Your task to perform on an android device: toggle location history Image 0: 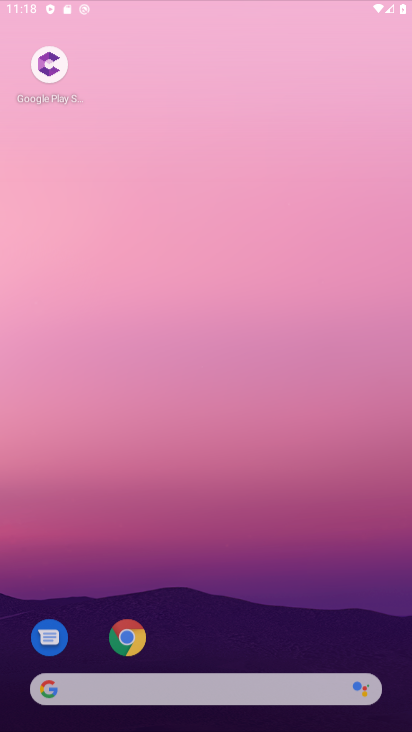
Step 0: click (159, 195)
Your task to perform on an android device: toggle location history Image 1: 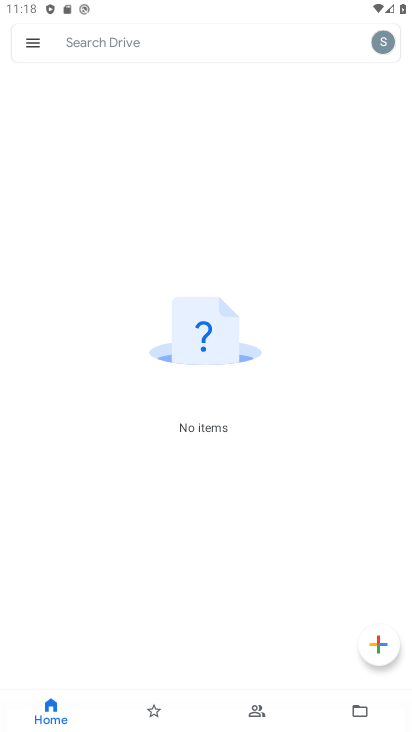
Step 1: press back button
Your task to perform on an android device: toggle location history Image 2: 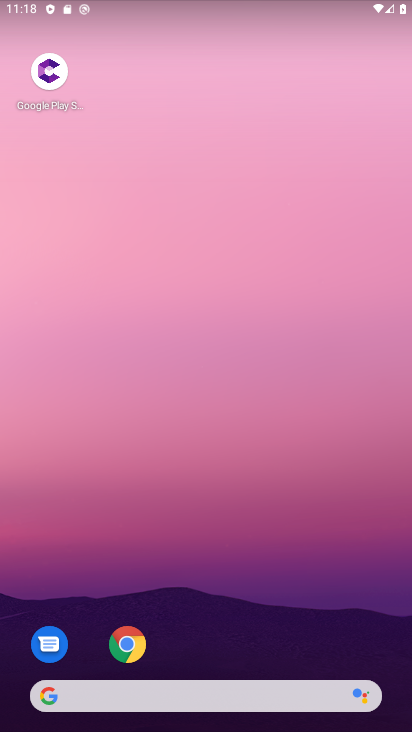
Step 2: drag from (239, 704) to (138, 177)
Your task to perform on an android device: toggle location history Image 3: 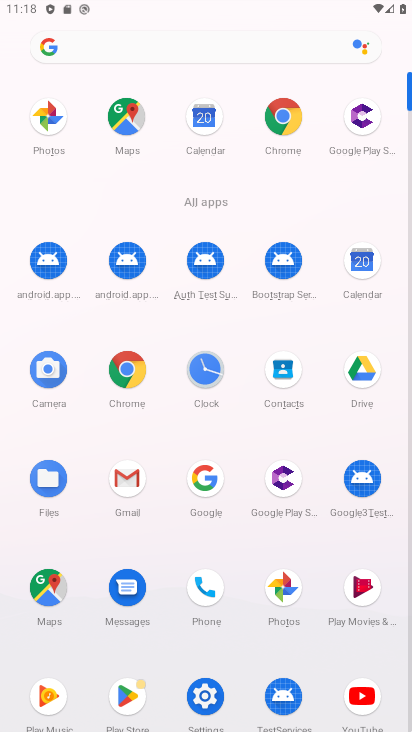
Step 3: click (203, 695)
Your task to perform on an android device: toggle location history Image 4: 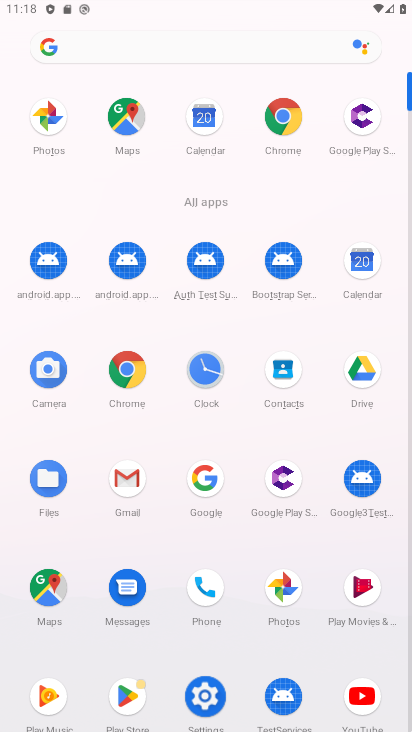
Step 4: click (202, 696)
Your task to perform on an android device: toggle location history Image 5: 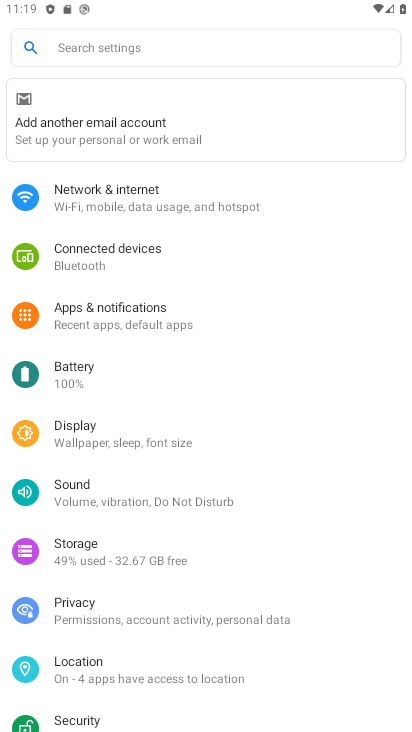
Step 5: drag from (133, 541) to (130, 265)
Your task to perform on an android device: toggle location history Image 6: 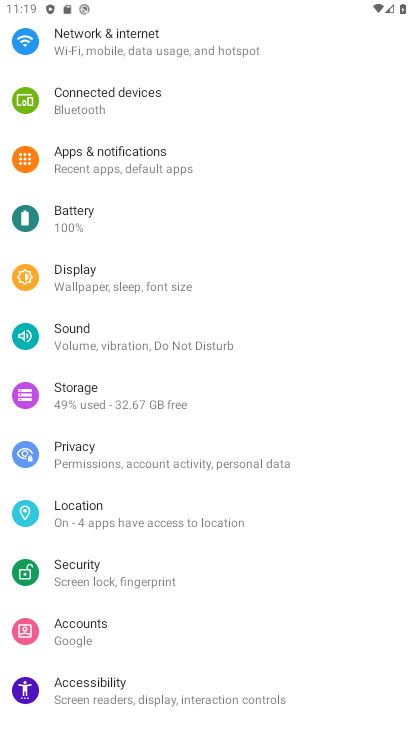
Step 6: drag from (141, 566) to (110, 275)
Your task to perform on an android device: toggle location history Image 7: 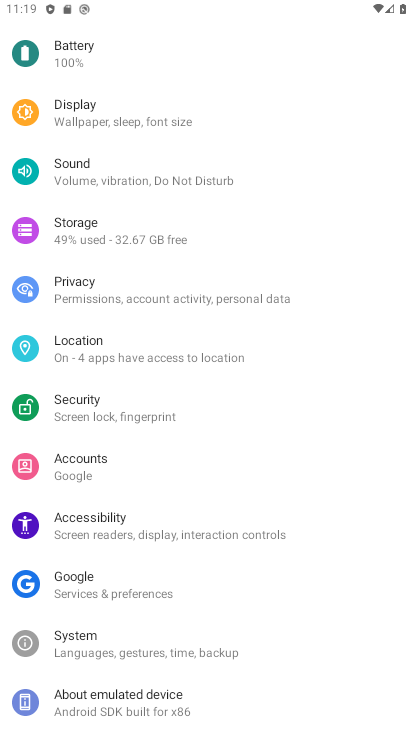
Step 7: drag from (98, 202) to (168, 534)
Your task to perform on an android device: toggle location history Image 8: 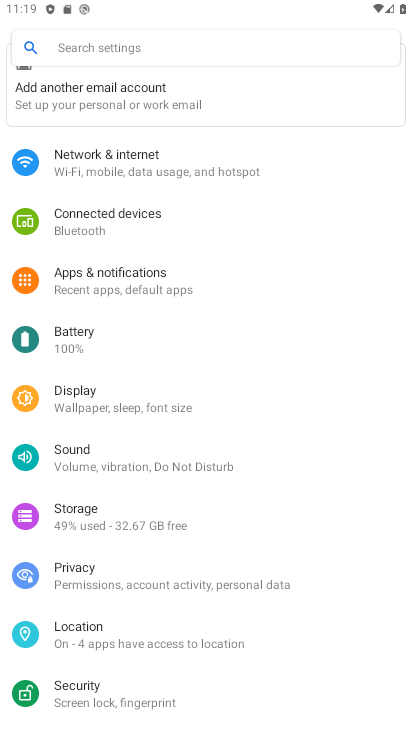
Step 8: drag from (142, 151) to (188, 472)
Your task to perform on an android device: toggle location history Image 9: 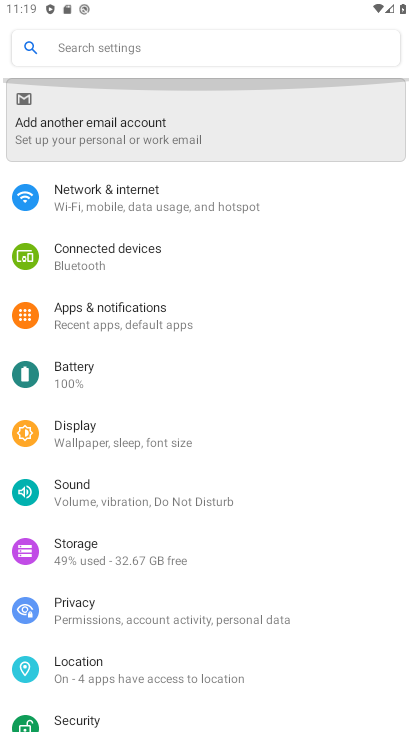
Step 9: drag from (106, 212) to (168, 593)
Your task to perform on an android device: toggle location history Image 10: 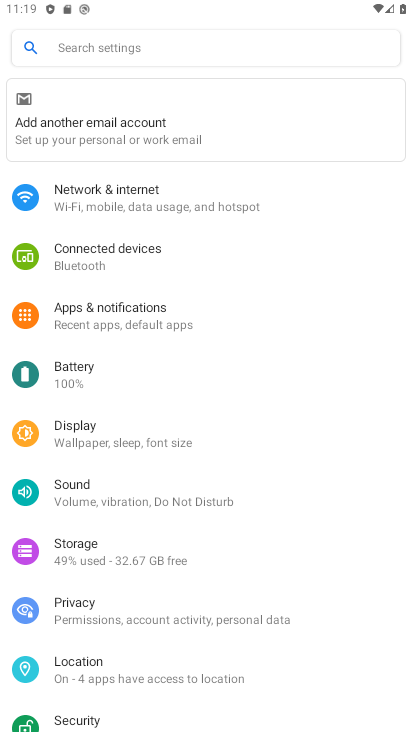
Step 10: drag from (102, 550) to (74, 326)
Your task to perform on an android device: toggle location history Image 11: 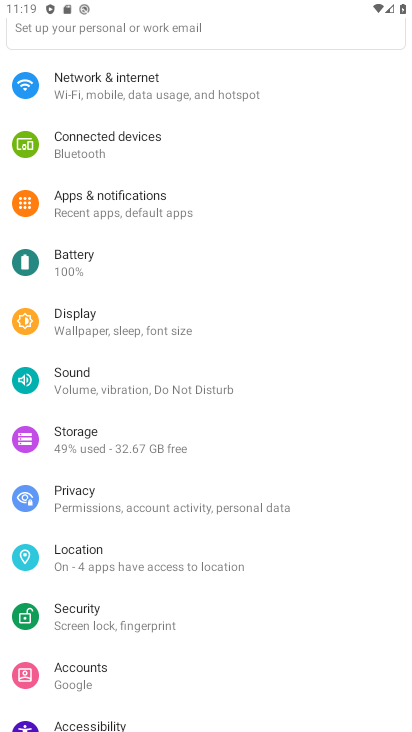
Step 11: drag from (138, 564) to (141, 378)
Your task to perform on an android device: toggle location history Image 12: 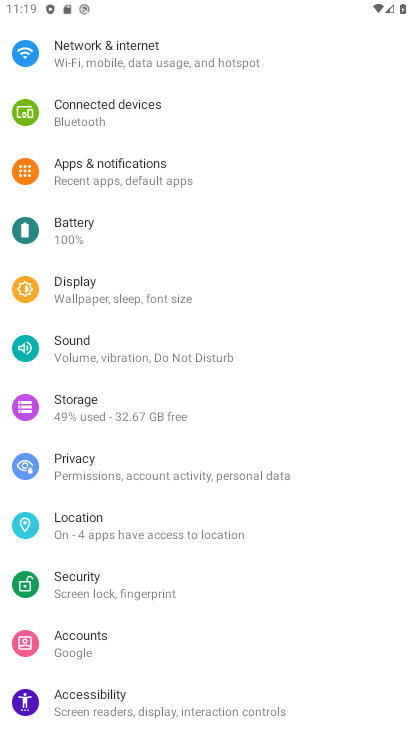
Step 12: click (103, 517)
Your task to perform on an android device: toggle location history Image 13: 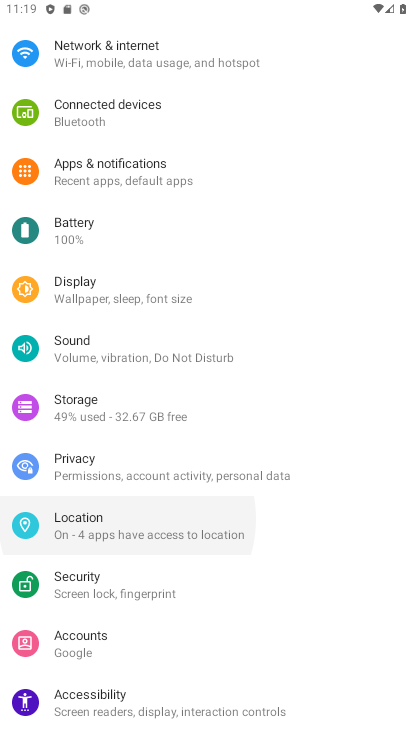
Step 13: click (102, 519)
Your task to perform on an android device: toggle location history Image 14: 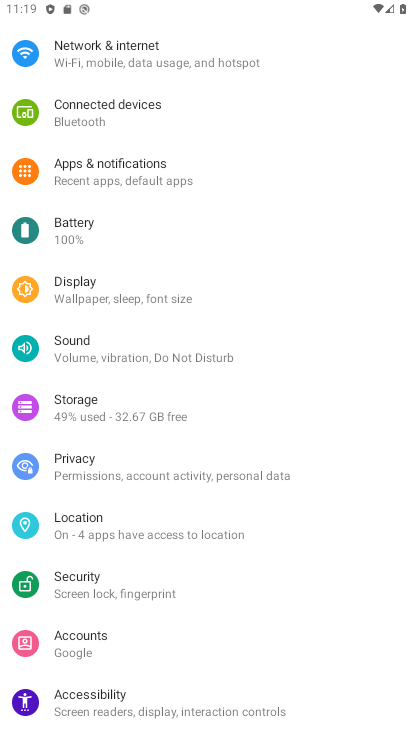
Step 14: click (102, 519)
Your task to perform on an android device: toggle location history Image 15: 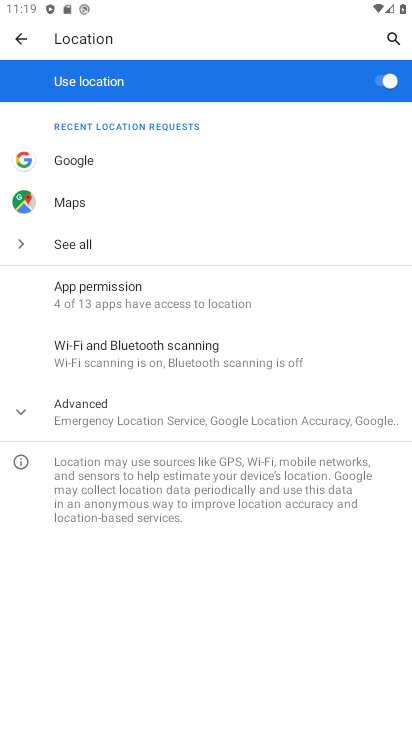
Step 15: click (65, 403)
Your task to perform on an android device: toggle location history Image 16: 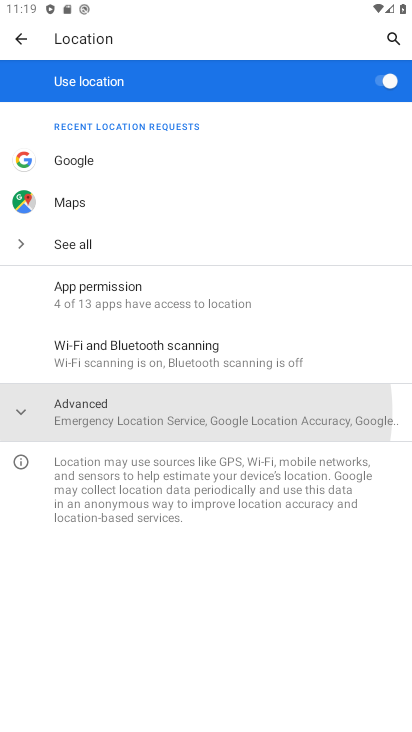
Step 16: click (76, 406)
Your task to perform on an android device: toggle location history Image 17: 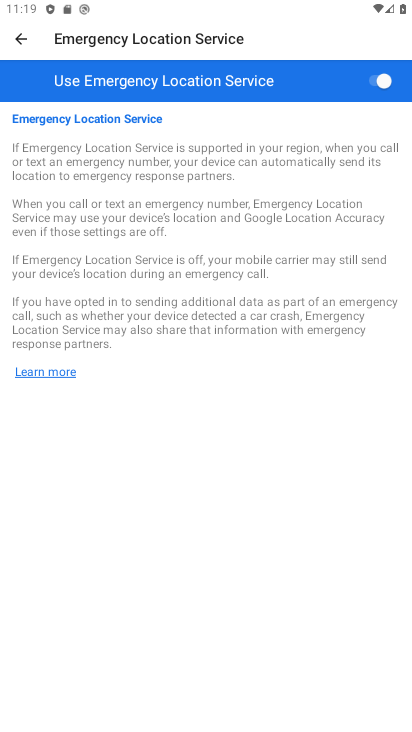
Step 17: click (16, 33)
Your task to perform on an android device: toggle location history Image 18: 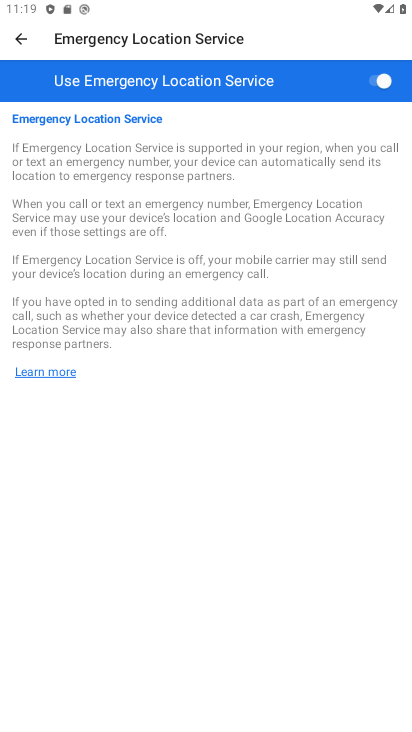
Step 18: click (16, 33)
Your task to perform on an android device: toggle location history Image 19: 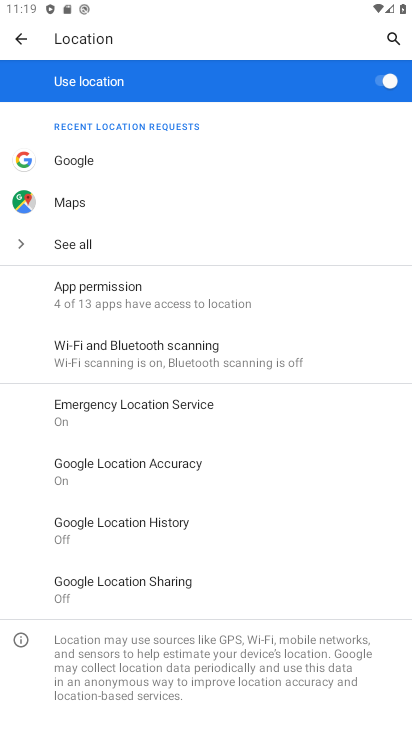
Step 19: click (122, 528)
Your task to perform on an android device: toggle location history Image 20: 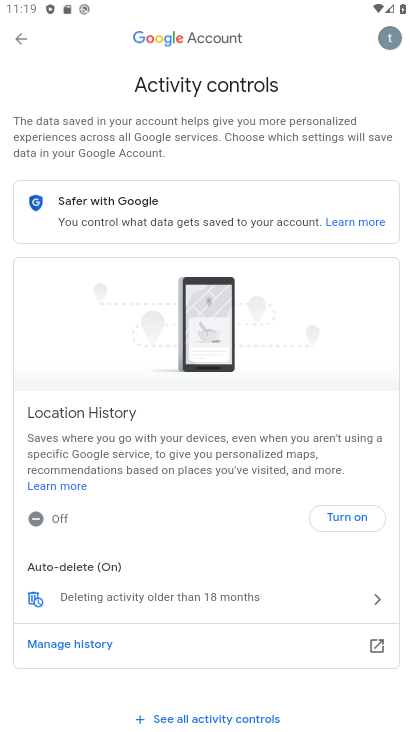
Step 20: click (333, 512)
Your task to perform on an android device: toggle location history Image 21: 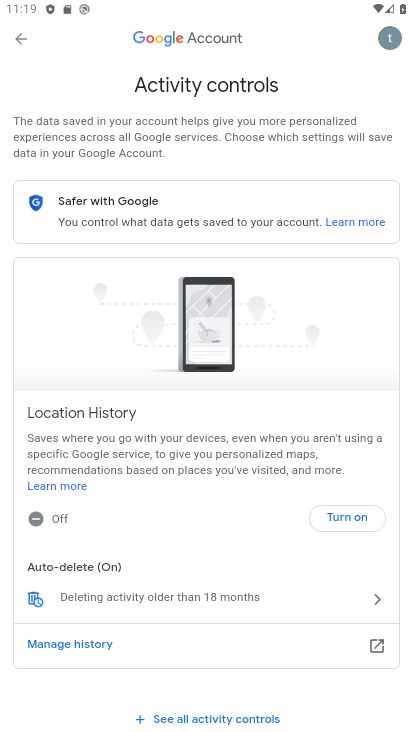
Step 21: click (335, 512)
Your task to perform on an android device: toggle location history Image 22: 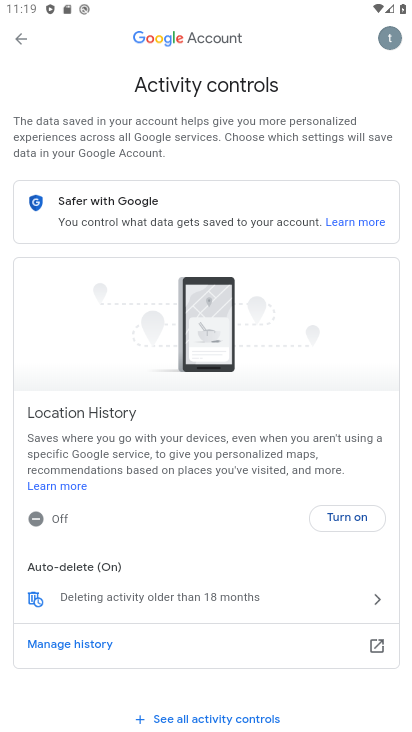
Step 22: click (335, 512)
Your task to perform on an android device: toggle location history Image 23: 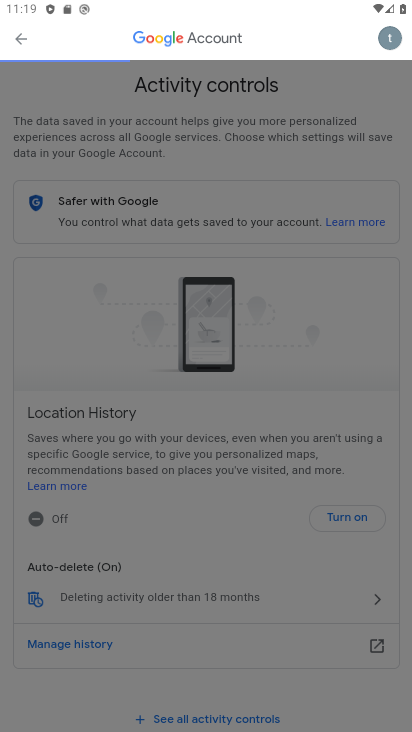
Step 23: click (344, 515)
Your task to perform on an android device: toggle location history Image 24: 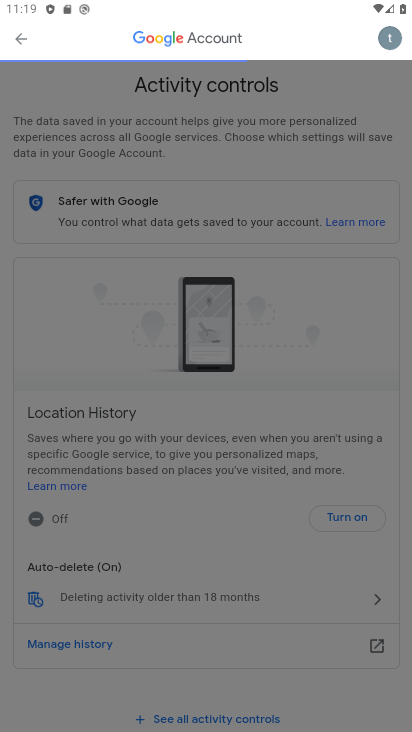
Step 24: click (353, 513)
Your task to perform on an android device: toggle location history Image 25: 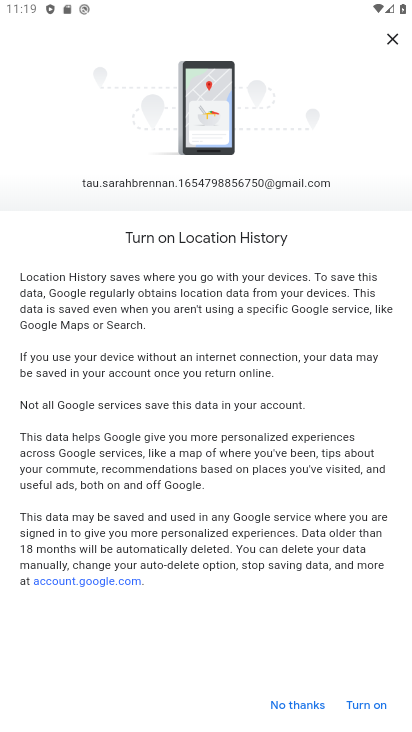
Step 25: task complete